Your task to perform on an android device: Open display settings Image 0: 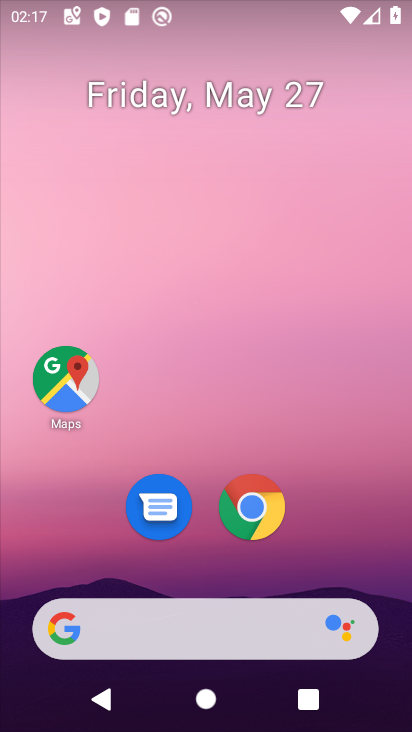
Step 0: drag from (216, 469) to (296, 36)
Your task to perform on an android device: Open display settings Image 1: 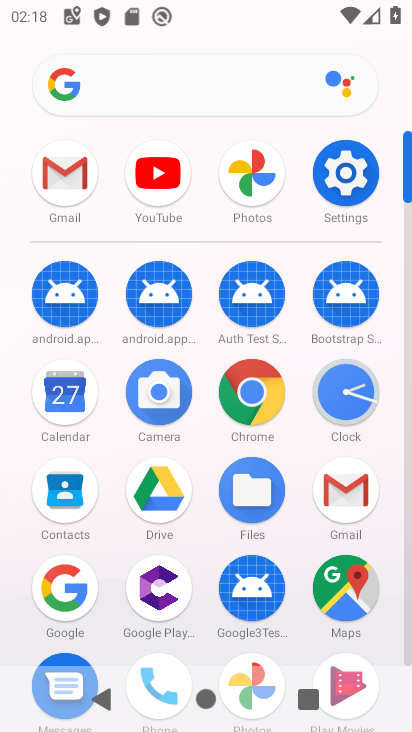
Step 1: click (328, 164)
Your task to perform on an android device: Open display settings Image 2: 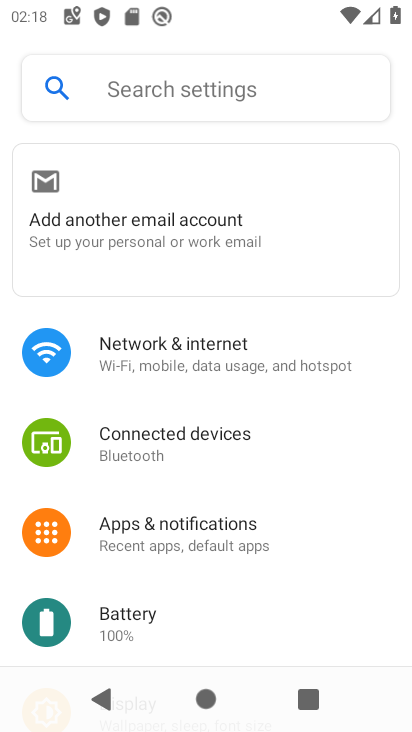
Step 2: drag from (202, 577) to (306, 44)
Your task to perform on an android device: Open display settings Image 3: 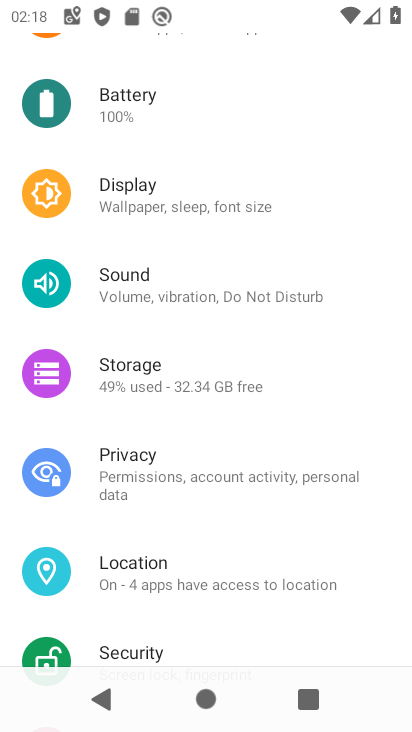
Step 3: click (163, 208)
Your task to perform on an android device: Open display settings Image 4: 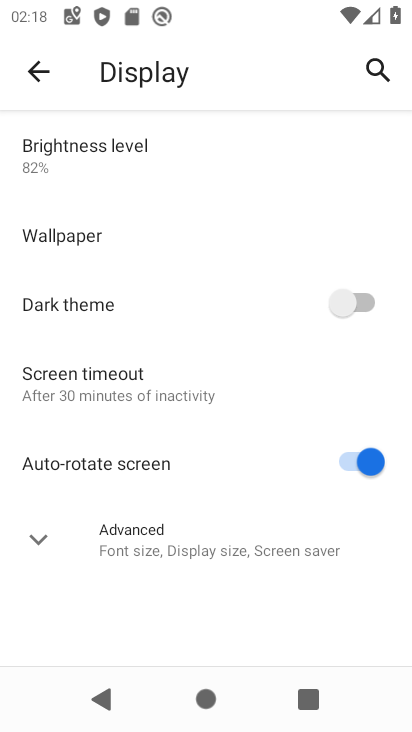
Step 4: task complete